Your task to perform on an android device: turn off priority inbox in the gmail app Image 0: 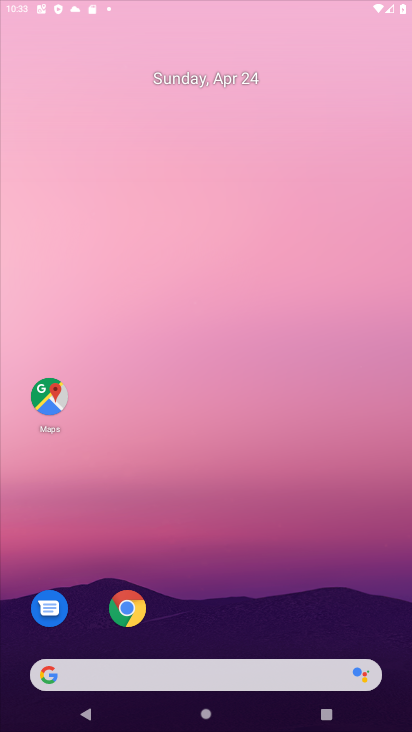
Step 0: drag from (295, 694) to (247, 152)
Your task to perform on an android device: turn off priority inbox in the gmail app Image 1: 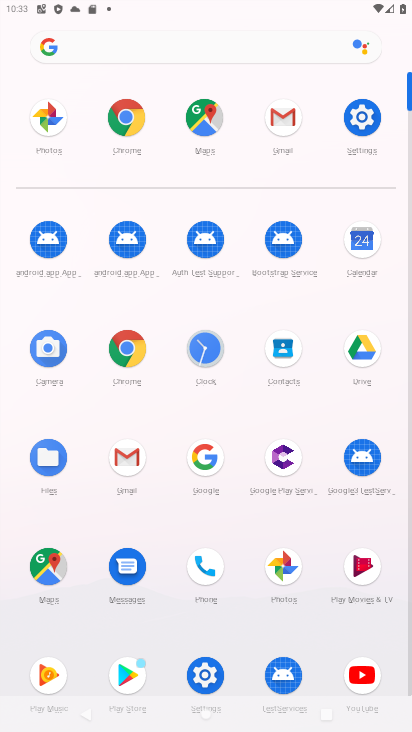
Step 1: click (124, 470)
Your task to perform on an android device: turn off priority inbox in the gmail app Image 2: 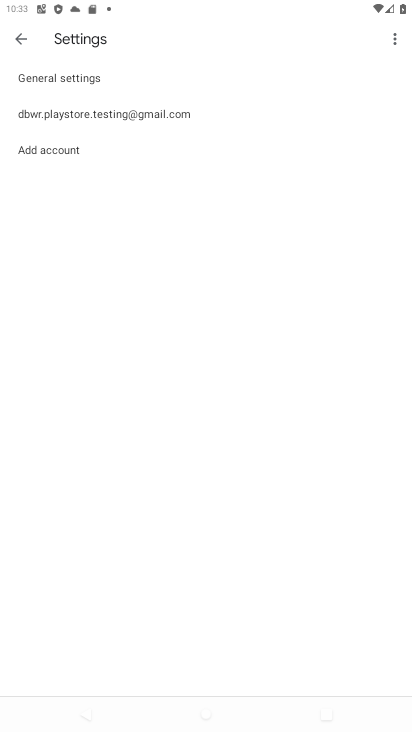
Step 2: click (83, 109)
Your task to perform on an android device: turn off priority inbox in the gmail app Image 3: 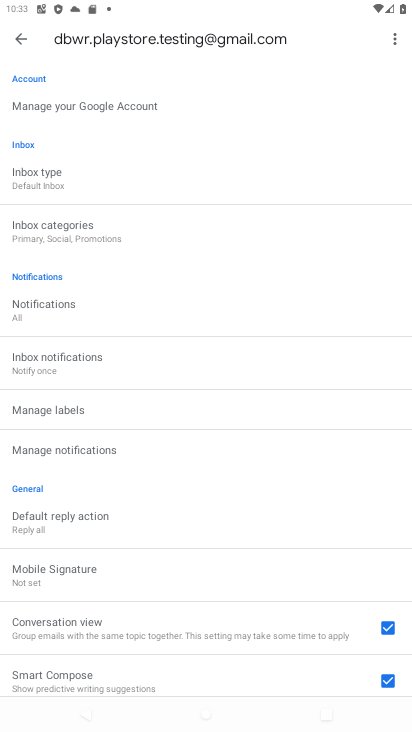
Step 3: click (85, 194)
Your task to perform on an android device: turn off priority inbox in the gmail app Image 4: 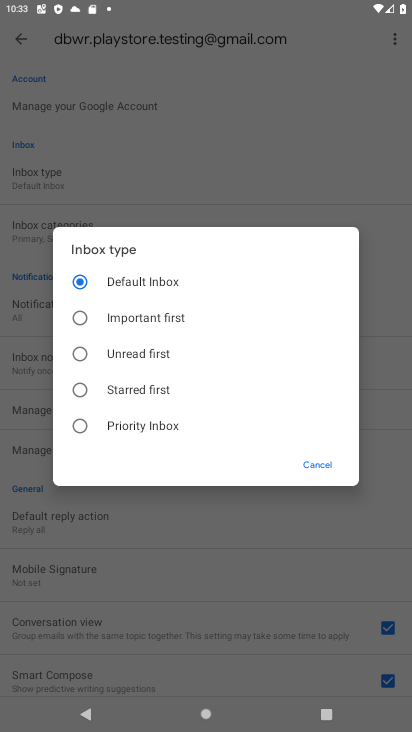
Step 4: task complete